Your task to perform on an android device: check data usage Image 0: 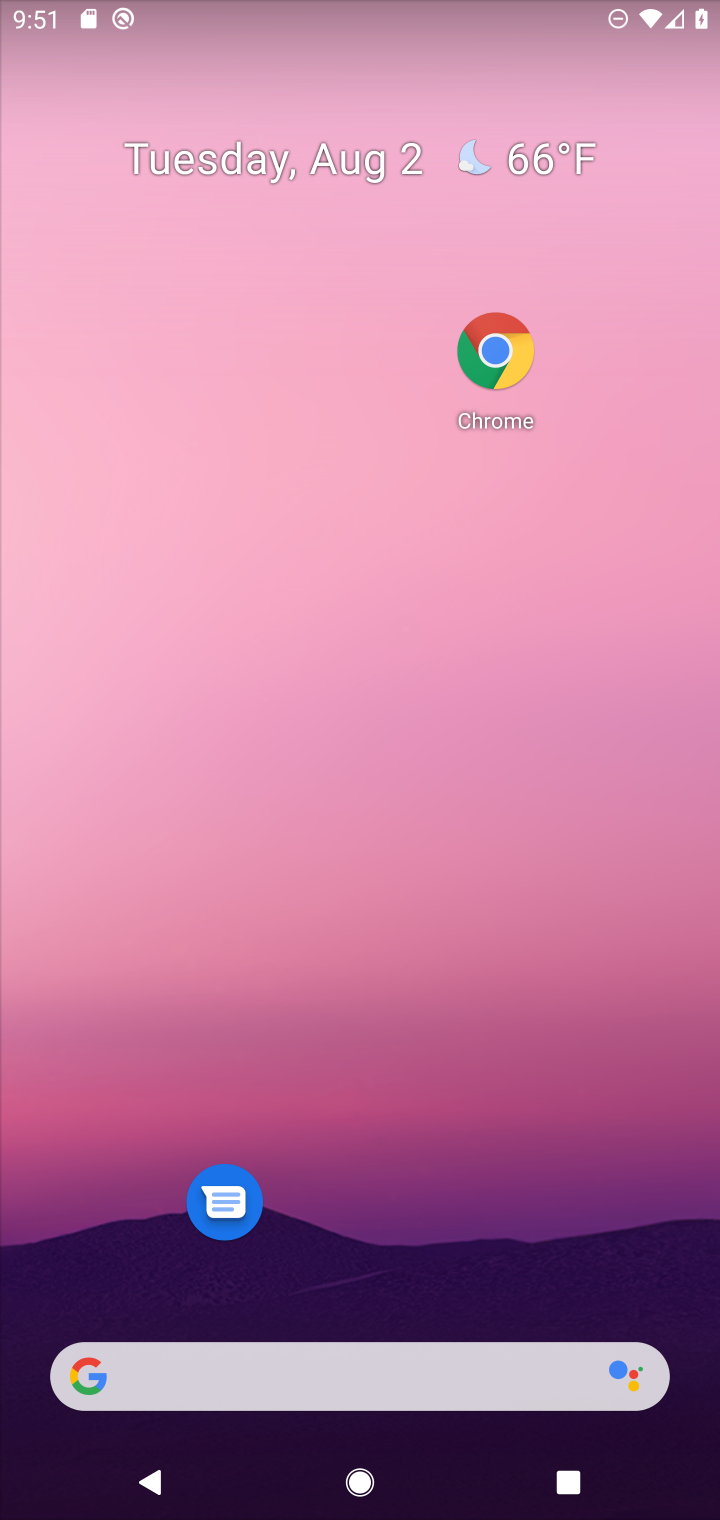
Step 0: click (672, 961)
Your task to perform on an android device: check data usage Image 1: 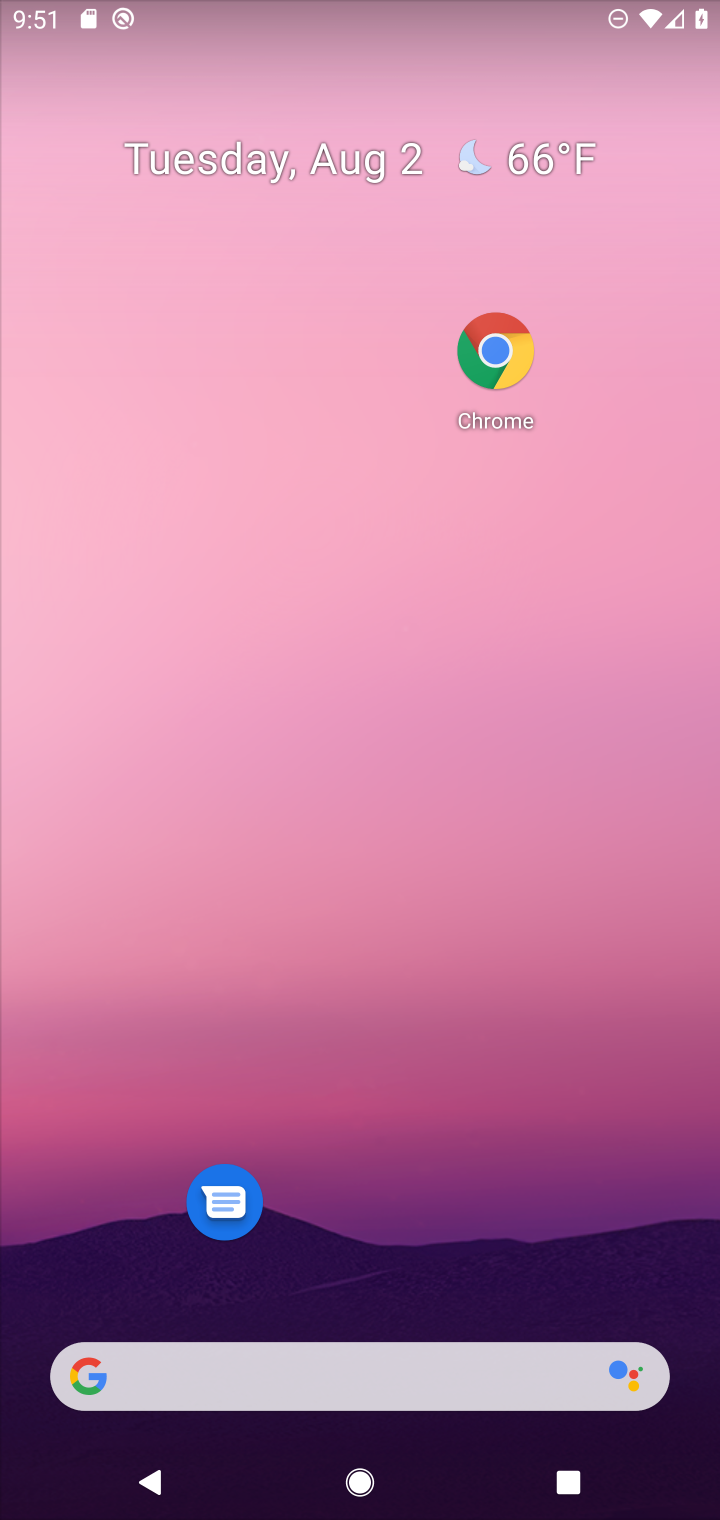
Step 1: drag from (325, 638) to (290, 35)
Your task to perform on an android device: check data usage Image 2: 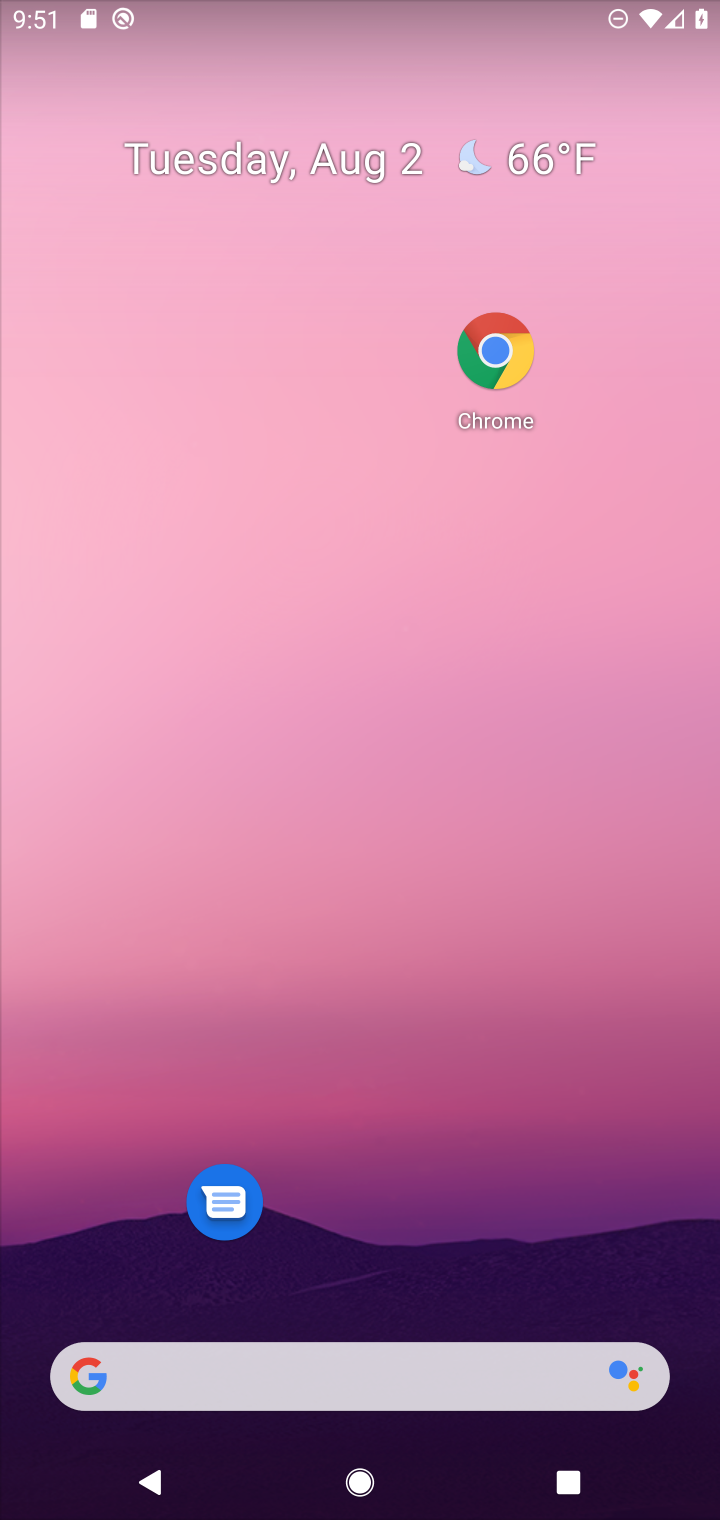
Step 2: drag from (384, 1340) to (391, 15)
Your task to perform on an android device: check data usage Image 3: 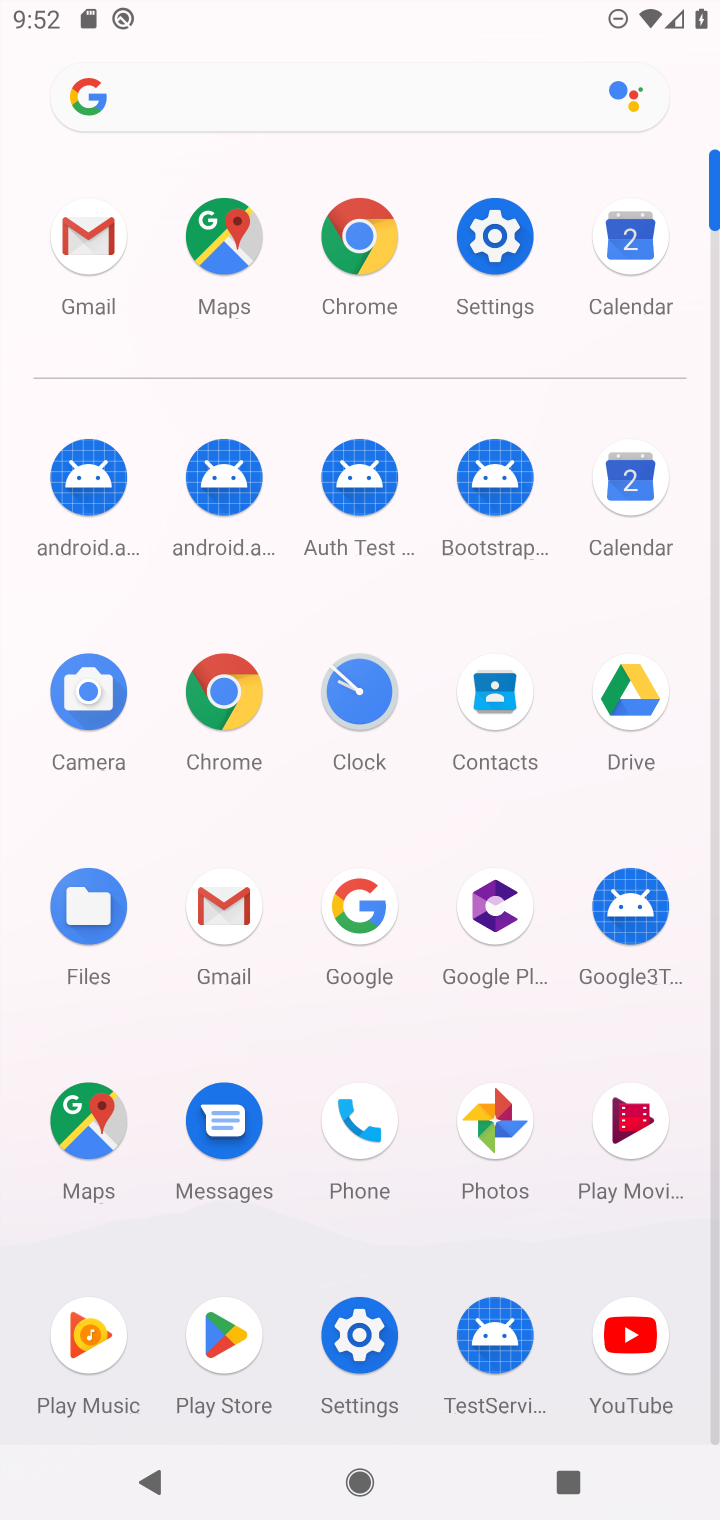
Step 3: click (496, 249)
Your task to perform on an android device: check data usage Image 4: 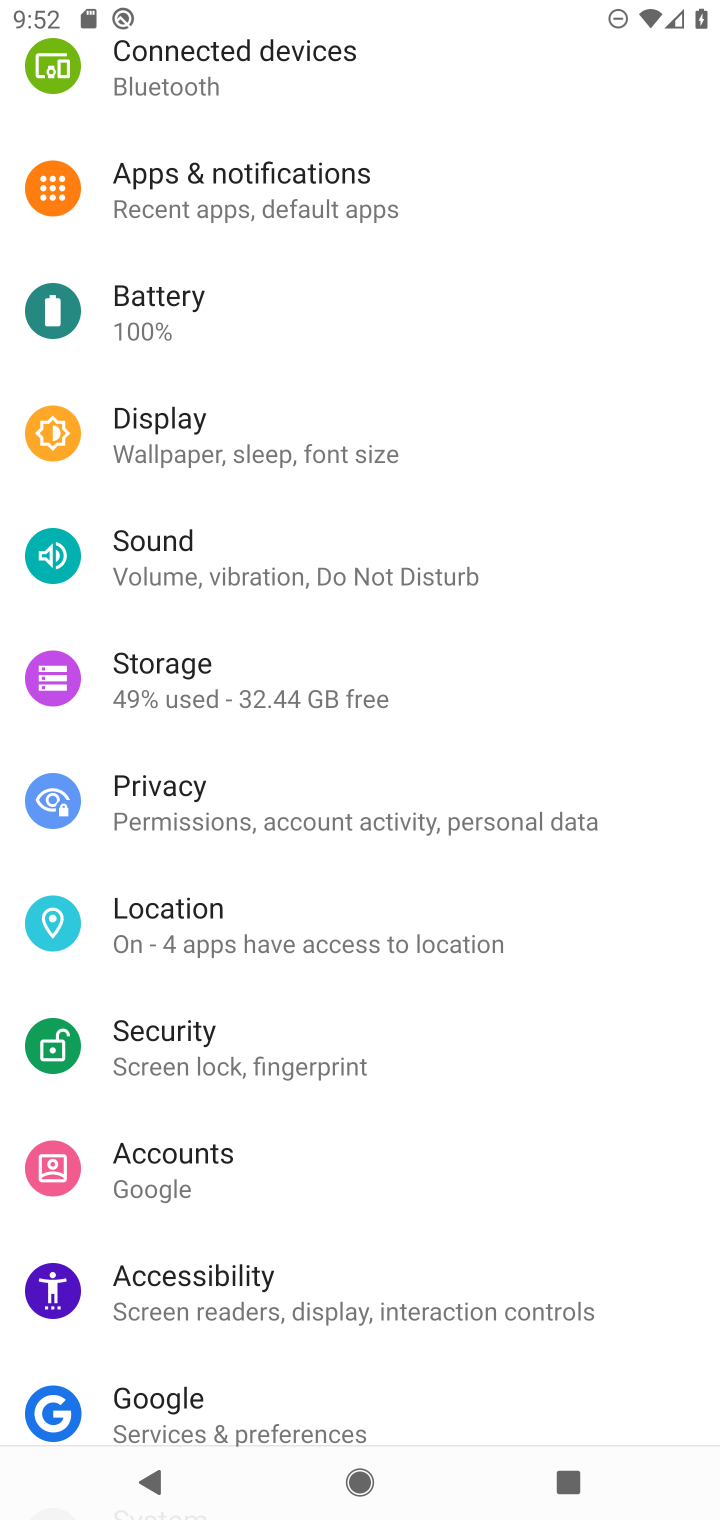
Step 4: drag from (568, 342) to (612, 969)
Your task to perform on an android device: check data usage Image 5: 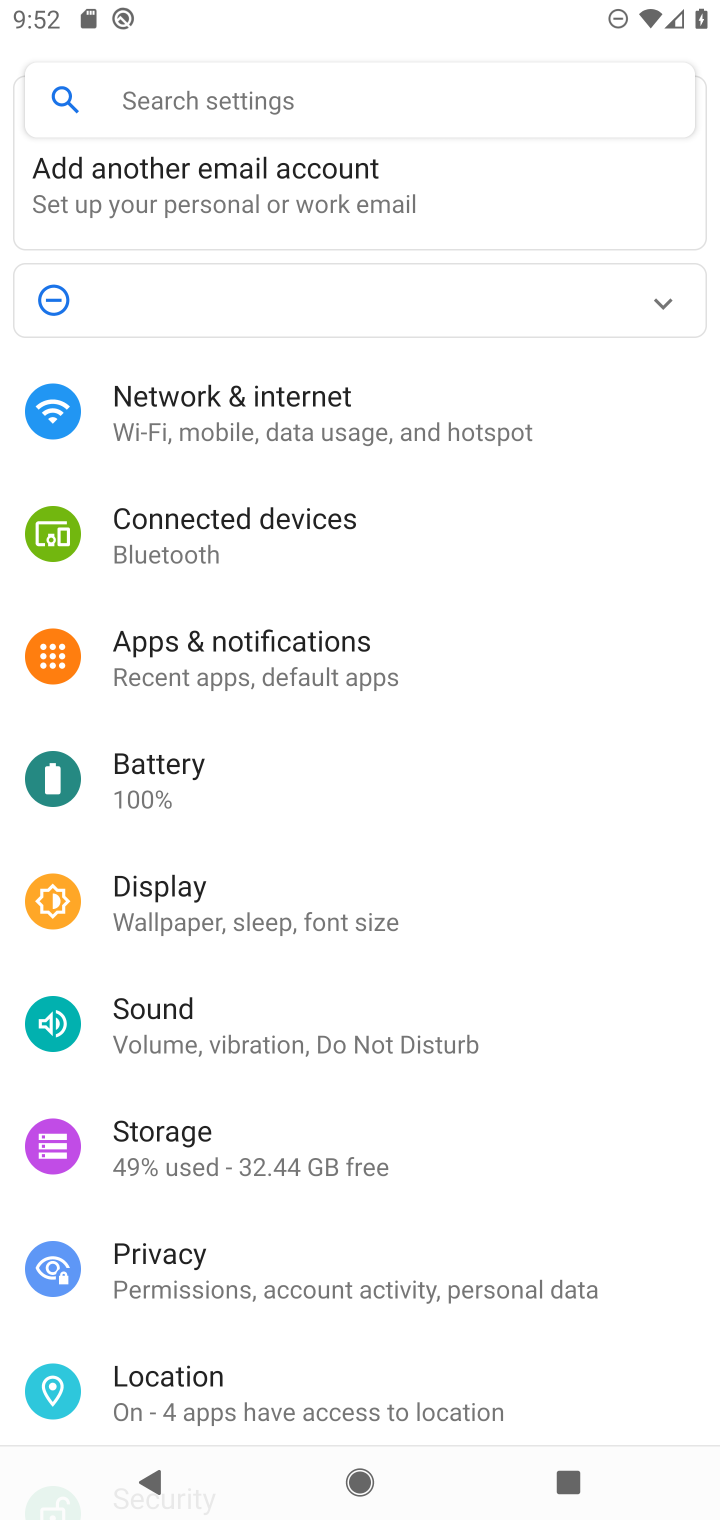
Step 5: click (230, 439)
Your task to perform on an android device: check data usage Image 6: 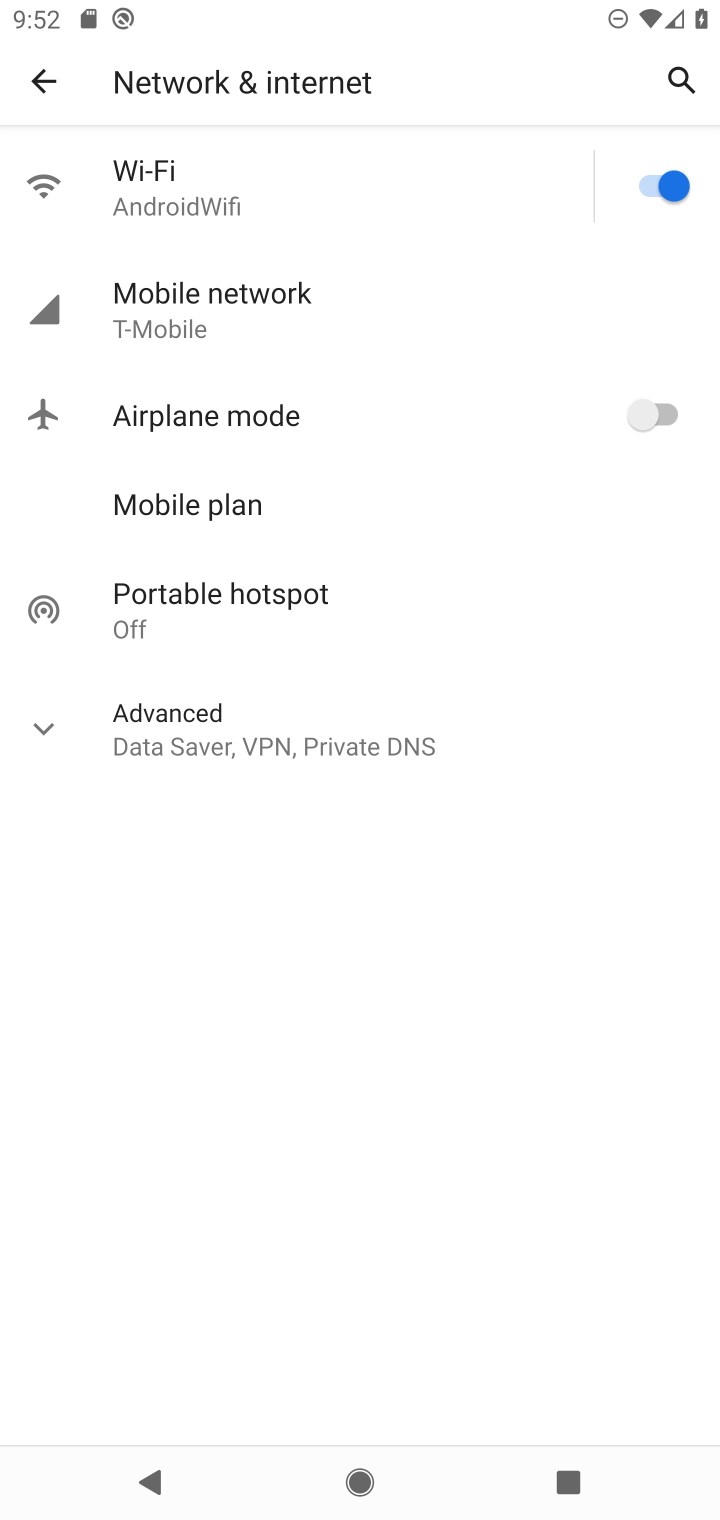
Step 6: click (153, 320)
Your task to perform on an android device: check data usage Image 7: 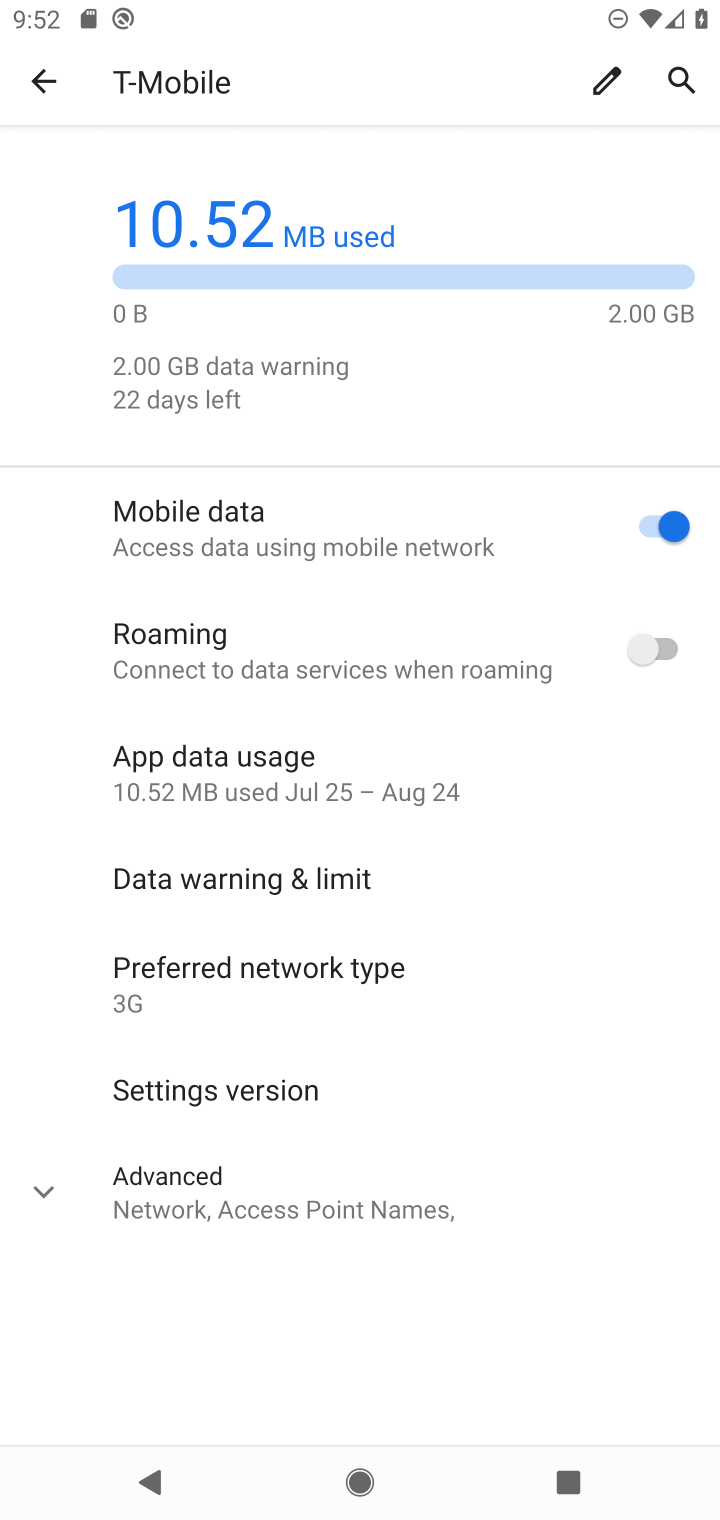
Step 7: click (198, 784)
Your task to perform on an android device: check data usage Image 8: 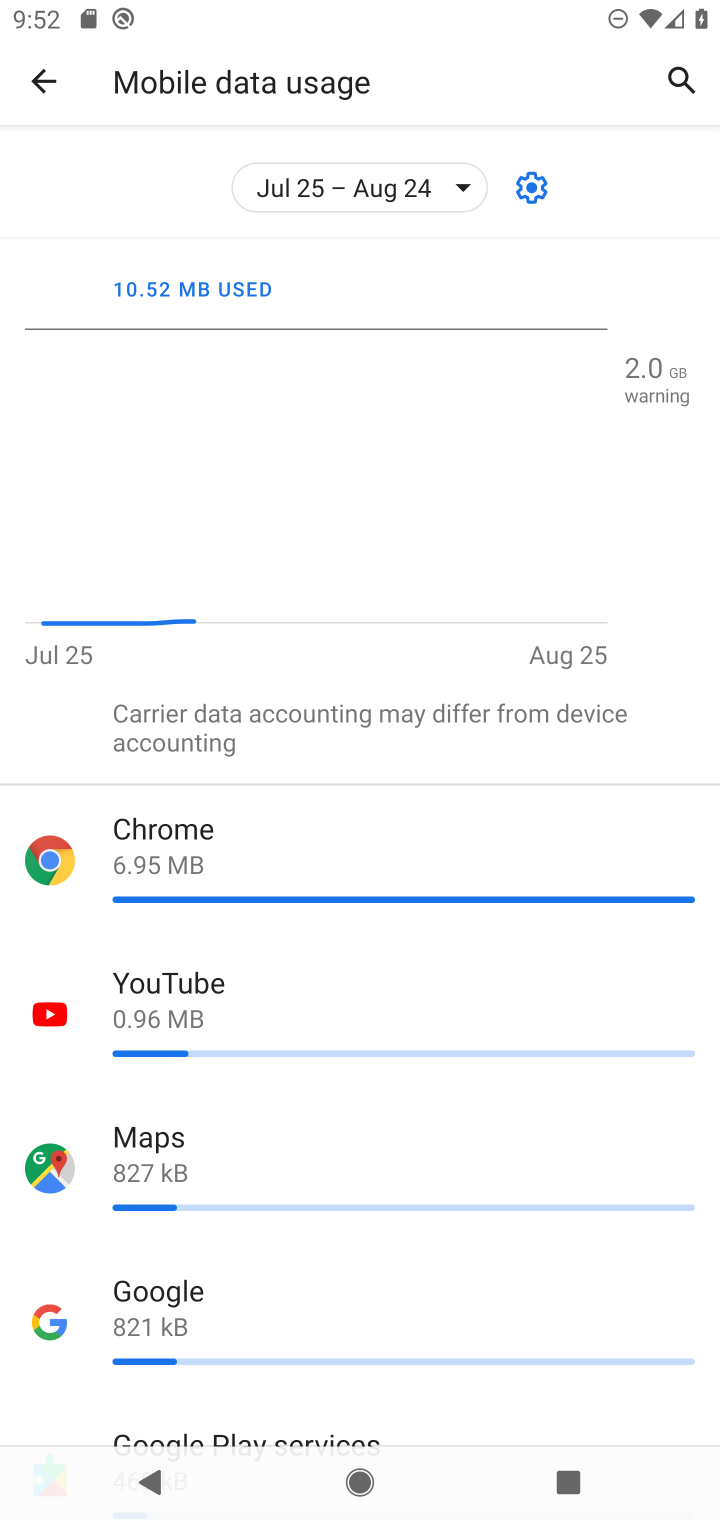
Step 8: task complete